Your task to perform on an android device: check battery use Image 0: 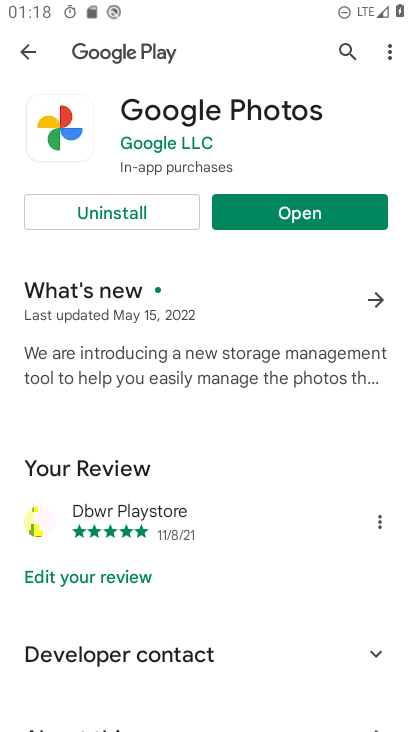
Step 0: press home button
Your task to perform on an android device: check battery use Image 1: 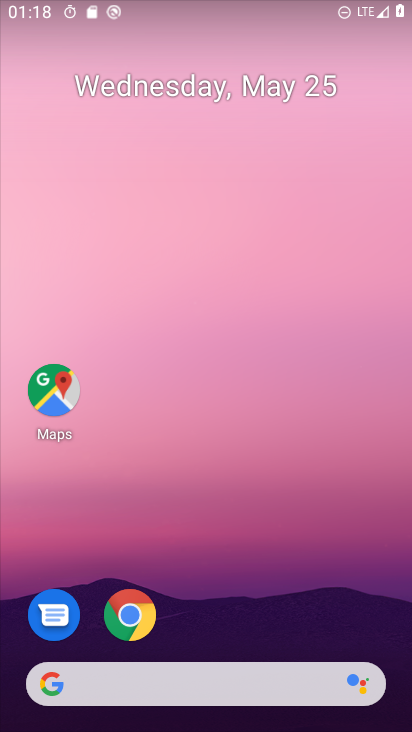
Step 1: drag from (237, 705) to (346, 72)
Your task to perform on an android device: check battery use Image 2: 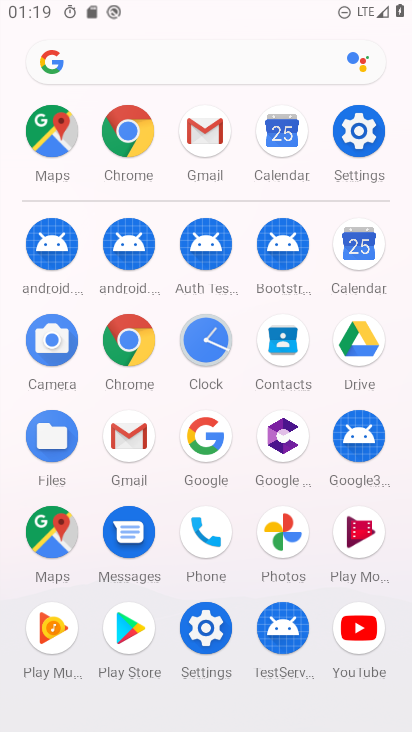
Step 2: click (362, 134)
Your task to perform on an android device: check battery use Image 3: 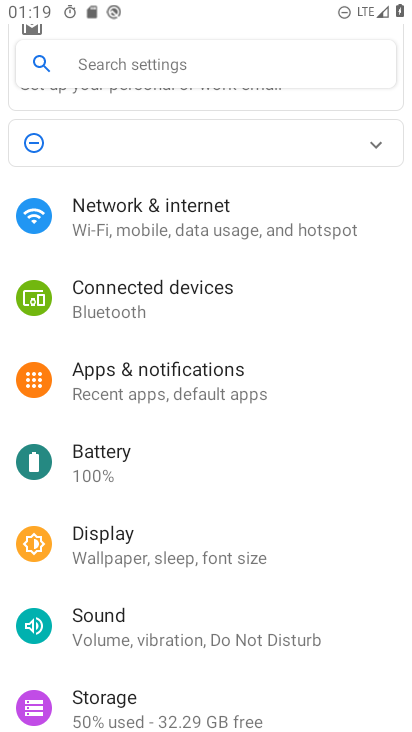
Step 3: click (156, 486)
Your task to perform on an android device: check battery use Image 4: 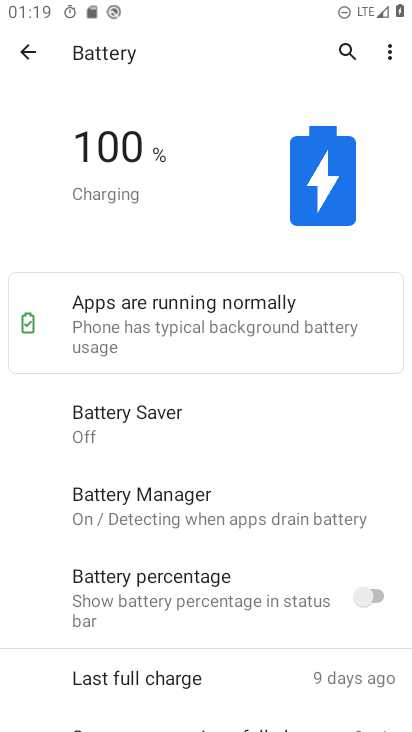
Step 4: task complete